Your task to perform on an android device: Open sound settings Image 0: 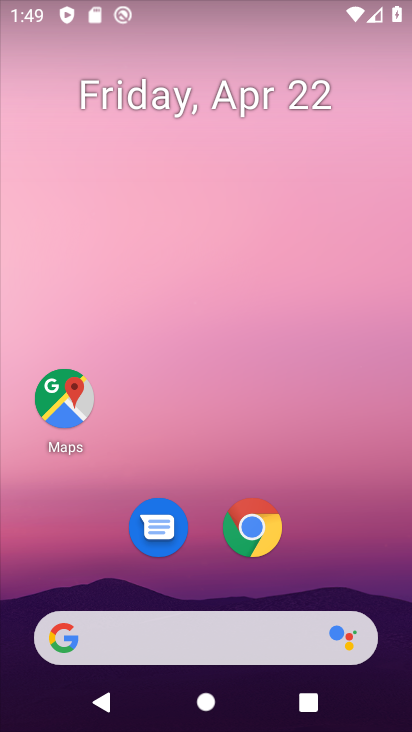
Step 0: drag from (375, 590) to (253, 75)
Your task to perform on an android device: Open sound settings Image 1: 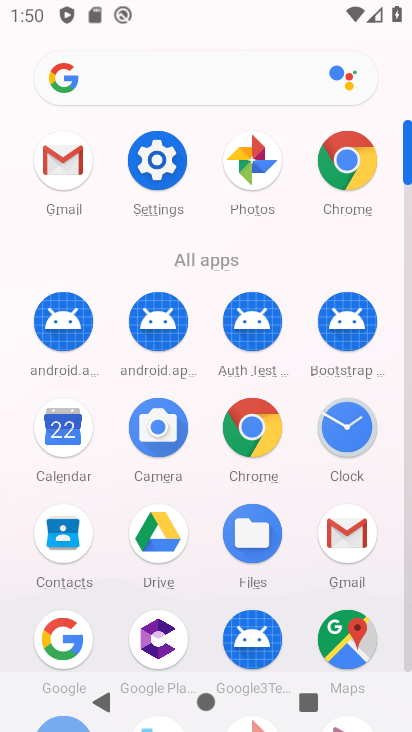
Step 1: click (170, 173)
Your task to perform on an android device: Open sound settings Image 2: 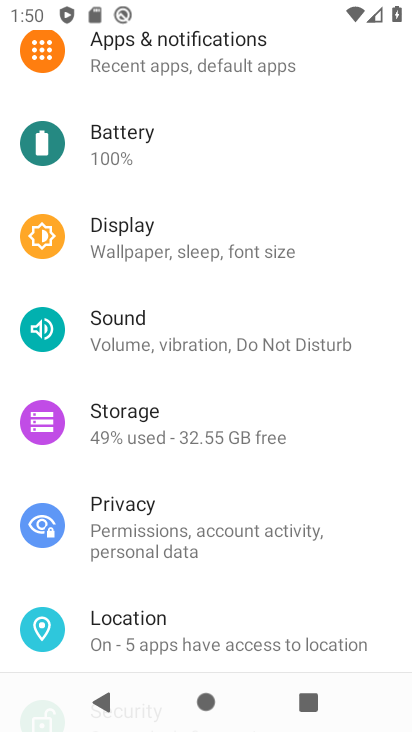
Step 2: click (172, 347)
Your task to perform on an android device: Open sound settings Image 3: 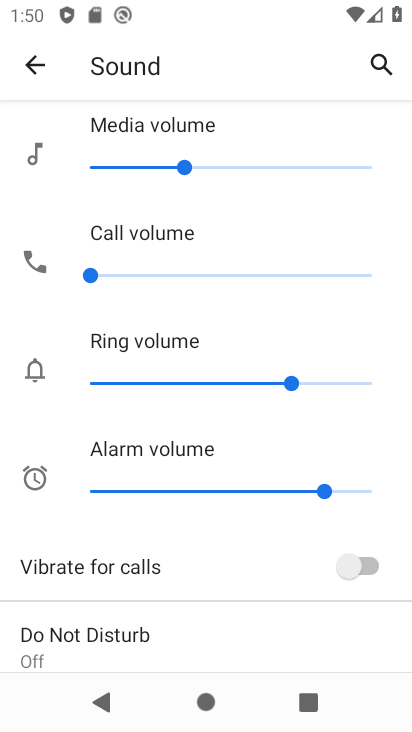
Step 3: drag from (184, 645) to (247, 140)
Your task to perform on an android device: Open sound settings Image 4: 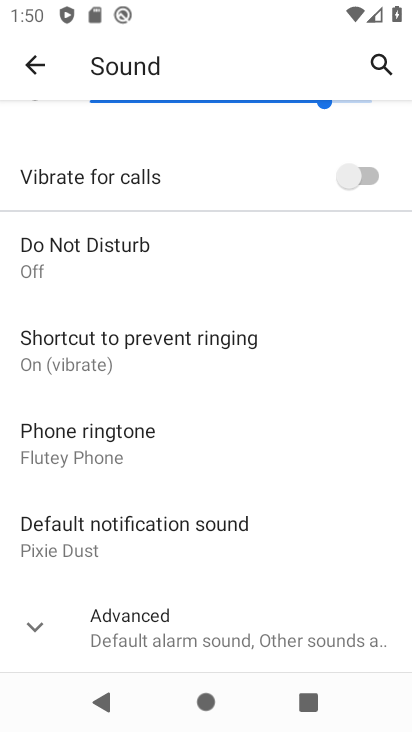
Step 4: click (31, 621)
Your task to perform on an android device: Open sound settings Image 5: 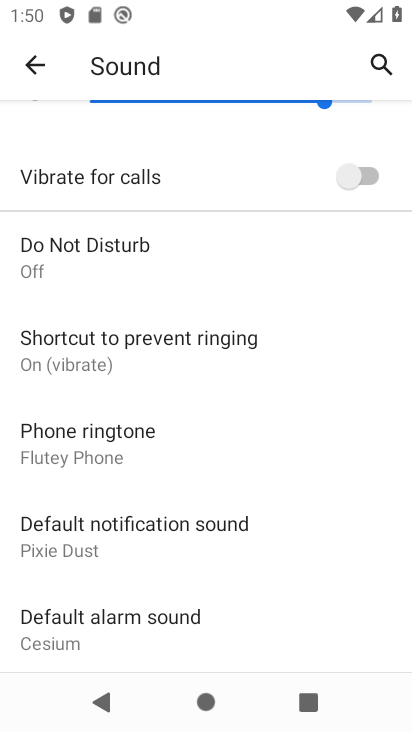
Step 5: task complete